Your task to perform on an android device: How much does a 2 bedroom apartment rent for in Boston? Image 0: 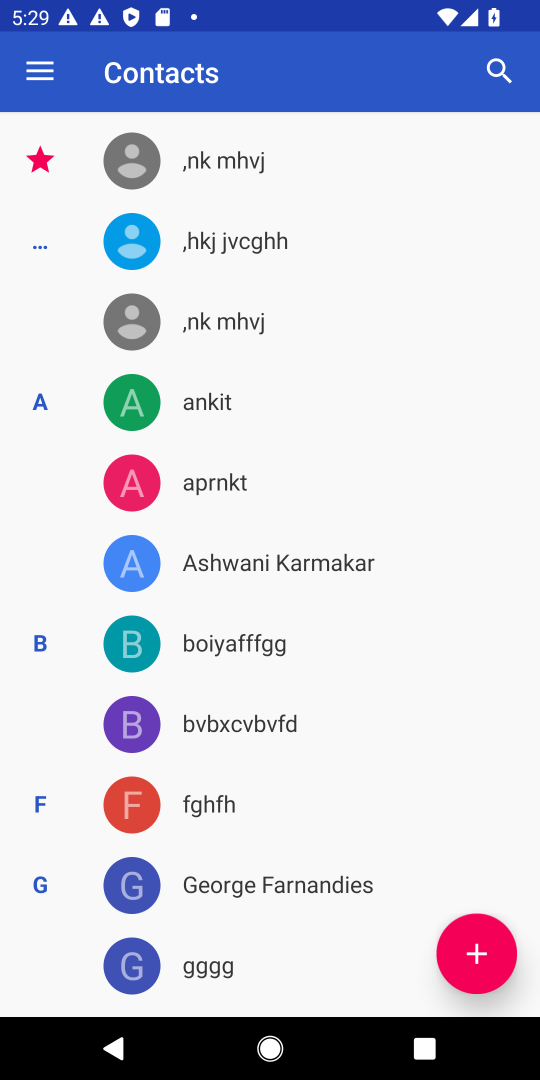
Step 0: press home button
Your task to perform on an android device: How much does a 2 bedroom apartment rent for in Boston? Image 1: 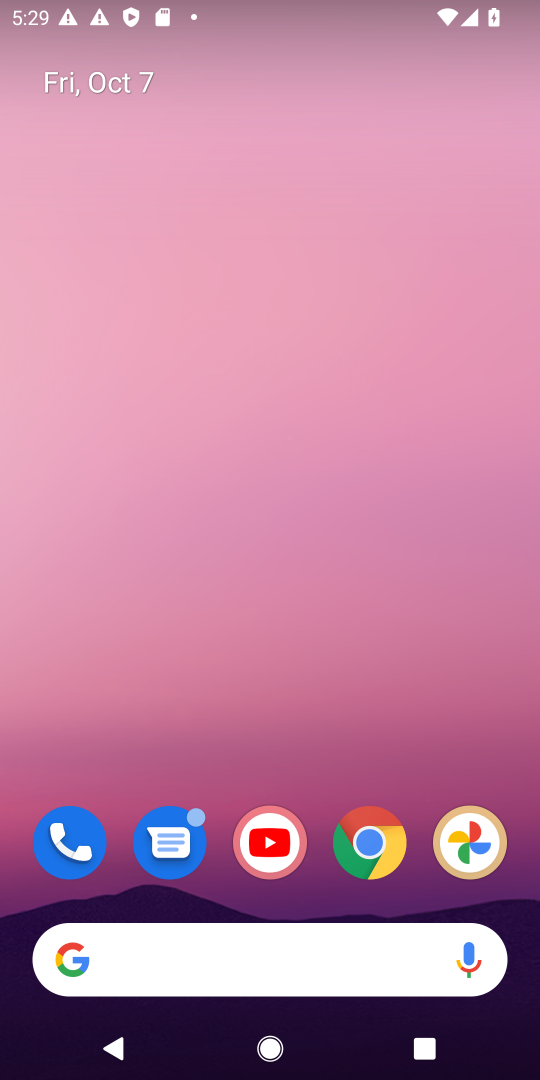
Step 1: drag from (190, 895) to (296, 56)
Your task to perform on an android device: How much does a 2 bedroom apartment rent for in Boston? Image 2: 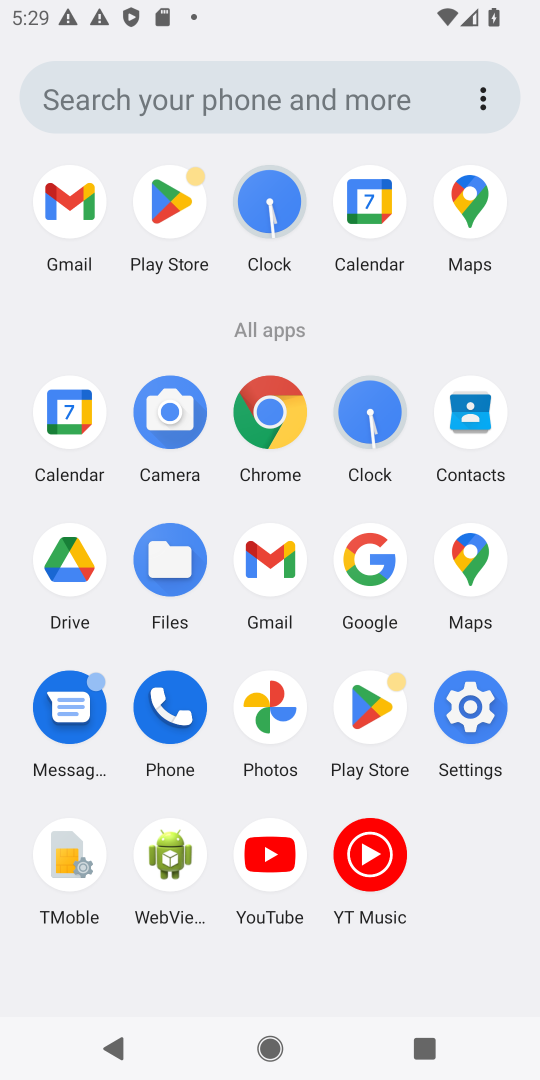
Step 2: click (388, 571)
Your task to perform on an android device: How much does a 2 bedroom apartment rent for in Boston? Image 3: 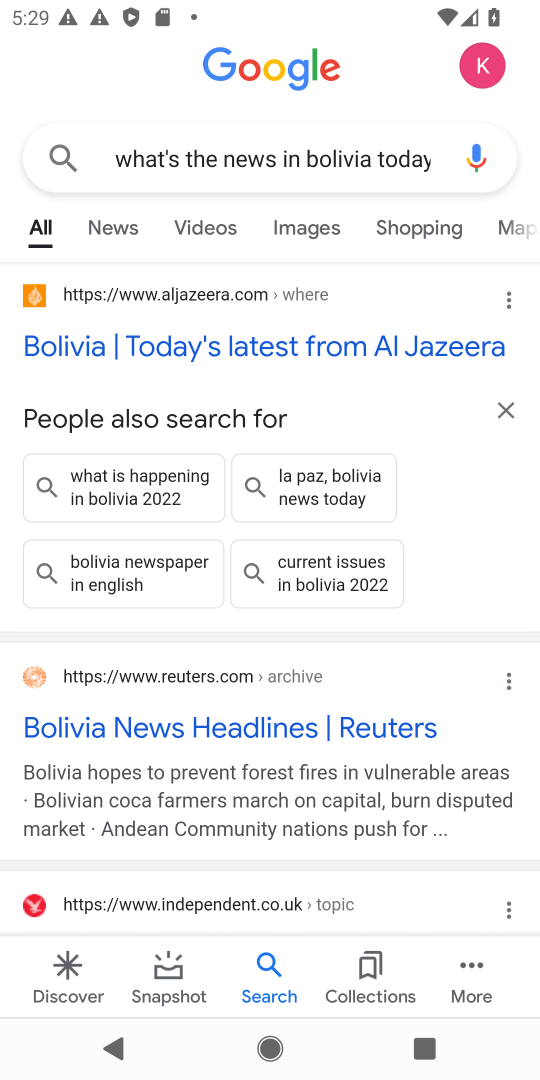
Step 3: click (405, 159)
Your task to perform on an android device: How much does a 2 bedroom apartment rent for in Boston? Image 4: 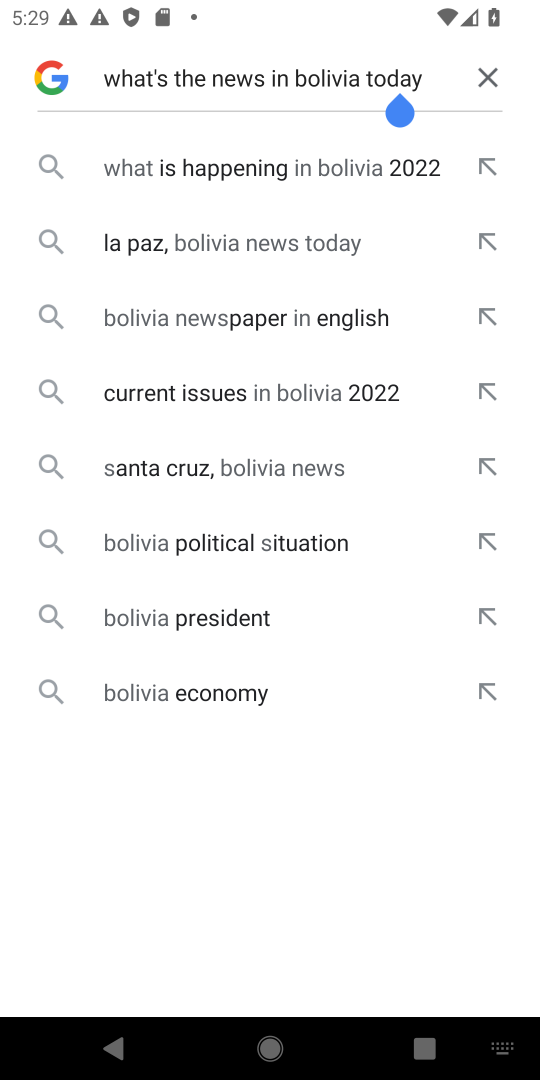
Step 4: click (488, 75)
Your task to perform on an android device: How much does a 2 bedroom apartment rent for in Boston? Image 5: 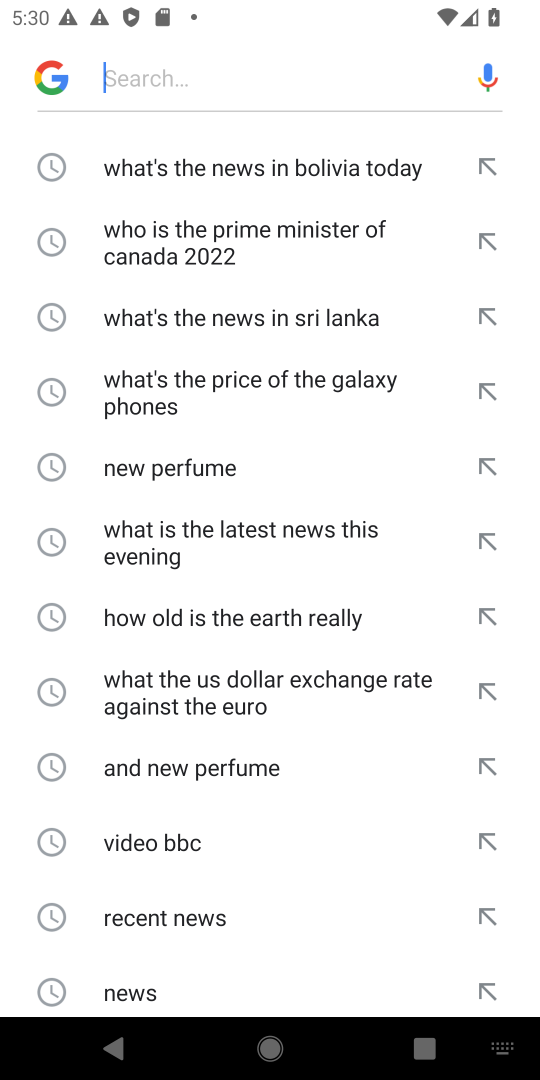
Step 5: click (115, 80)
Your task to perform on an android device: How much does a 2 bedroom apartment rent for in Boston? Image 6: 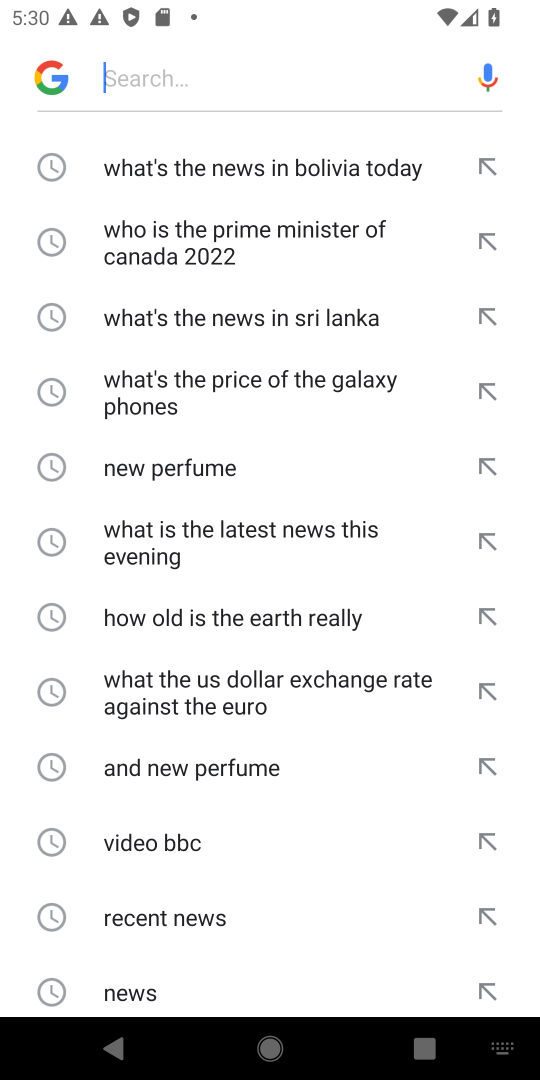
Step 6: type "How much does a 2 bedroom apartment rent for in Boston"
Your task to perform on an android device: How much does a 2 bedroom apartment rent for in Boston? Image 7: 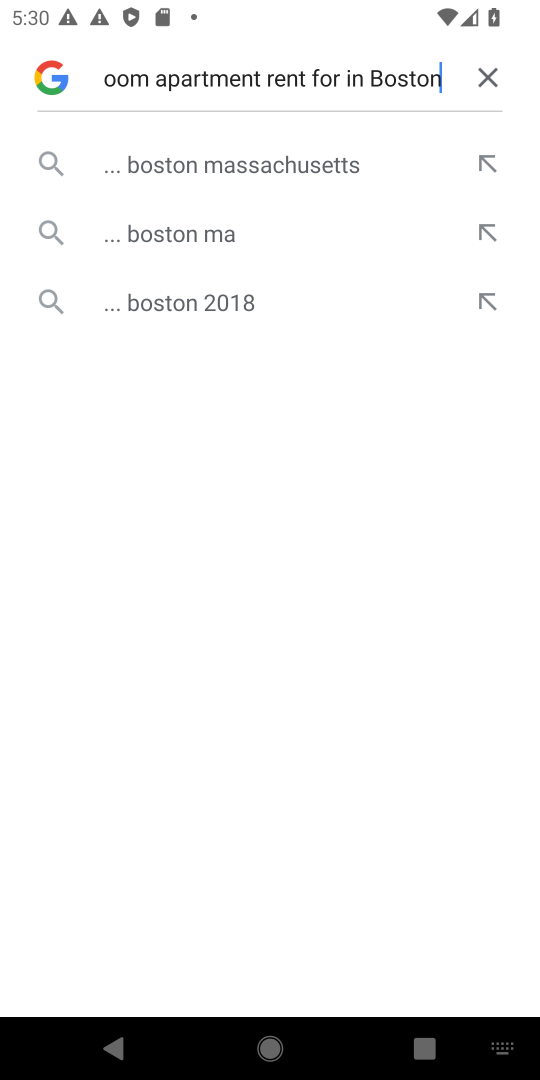
Step 7: click (228, 164)
Your task to perform on an android device: How much does a 2 bedroom apartment rent for in Boston? Image 8: 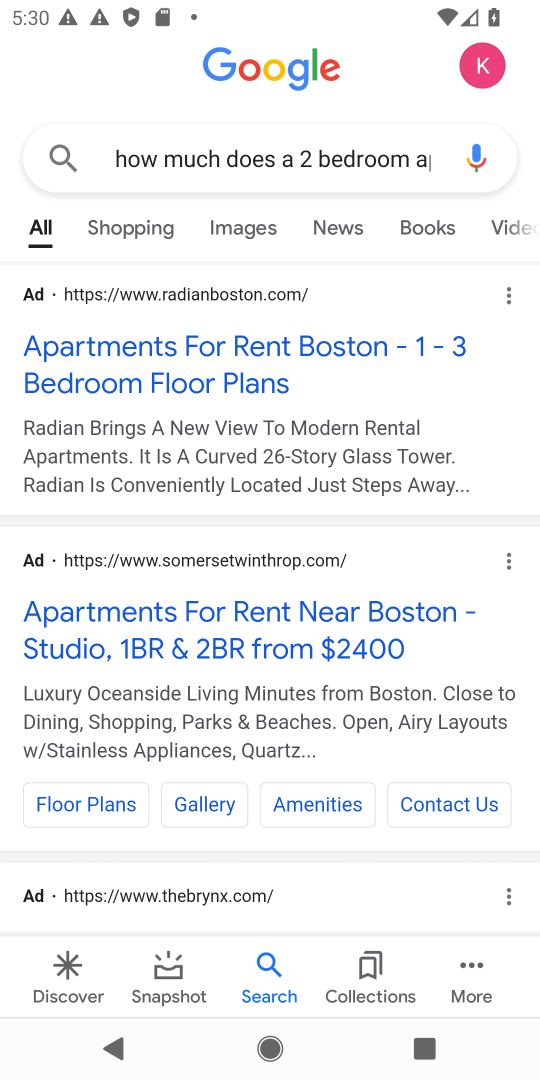
Step 8: drag from (337, 842) to (414, 95)
Your task to perform on an android device: How much does a 2 bedroom apartment rent for in Boston? Image 9: 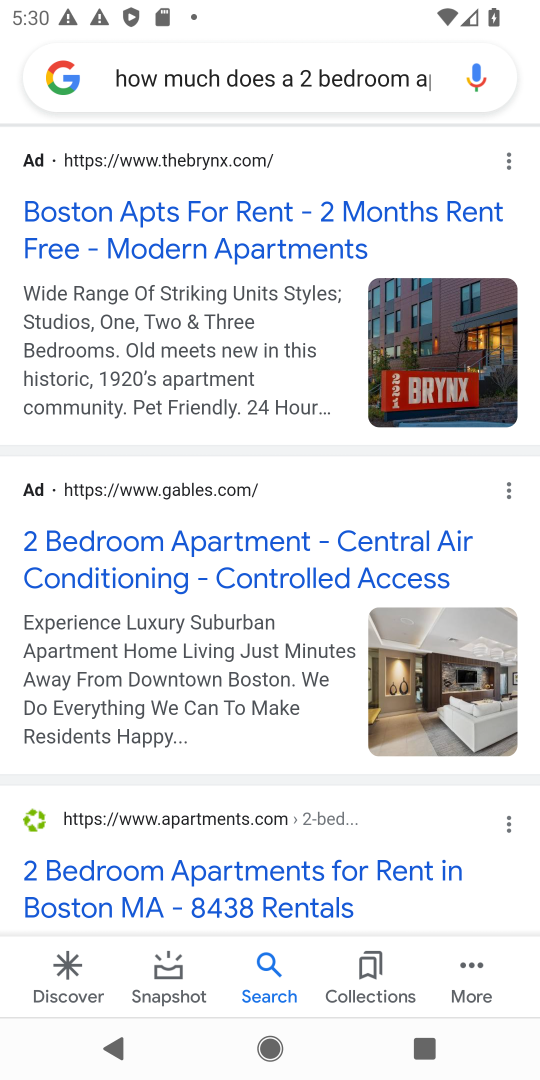
Step 9: click (150, 870)
Your task to perform on an android device: How much does a 2 bedroom apartment rent for in Boston? Image 10: 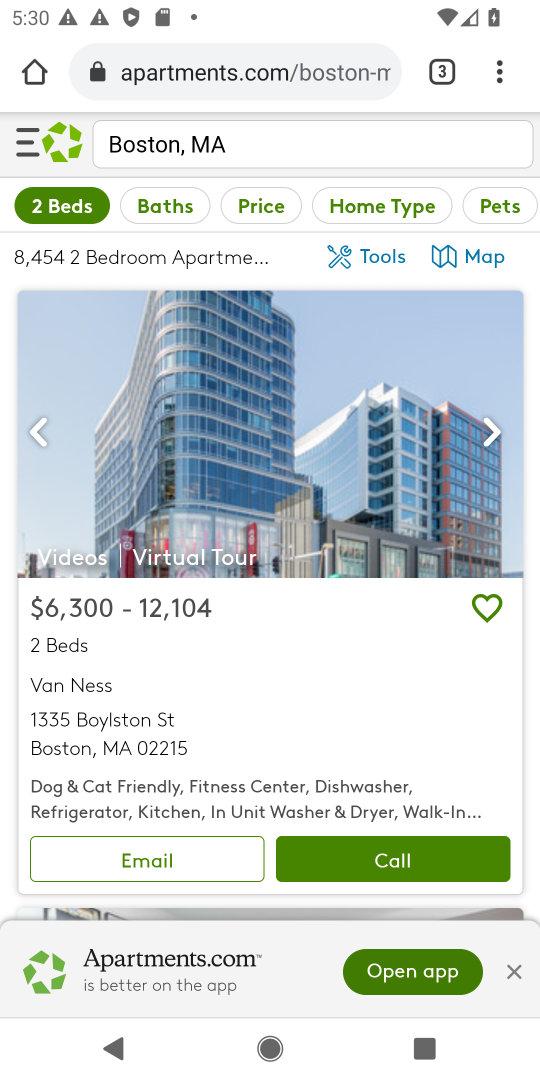
Step 10: task complete